Your task to perform on an android device: Open the stopwatch Image 0: 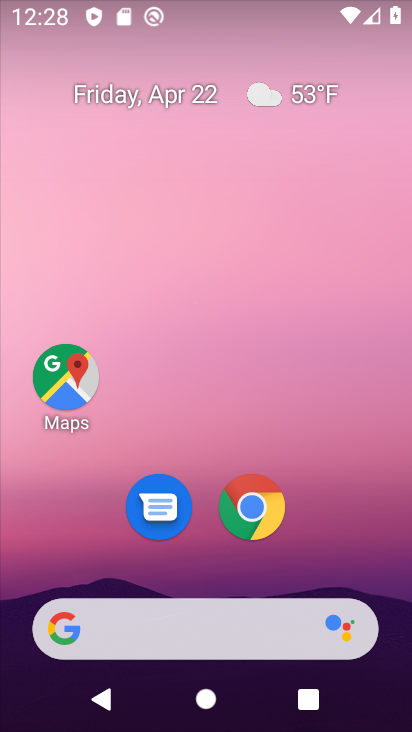
Step 0: drag from (308, 397) to (332, 213)
Your task to perform on an android device: Open the stopwatch Image 1: 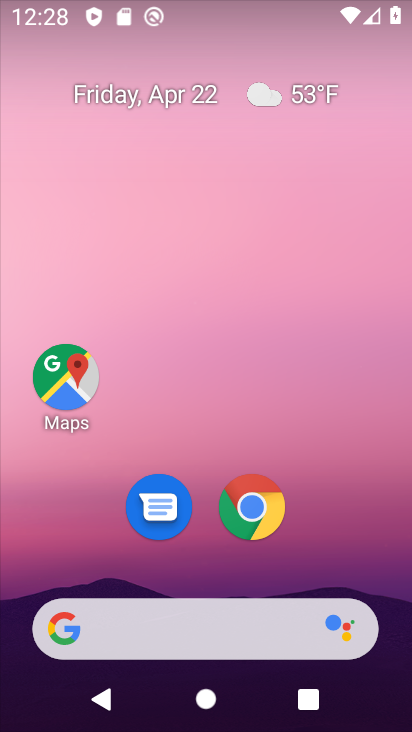
Step 1: drag from (194, 568) to (242, 185)
Your task to perform on an android device: Open the stopwatch Image 2: 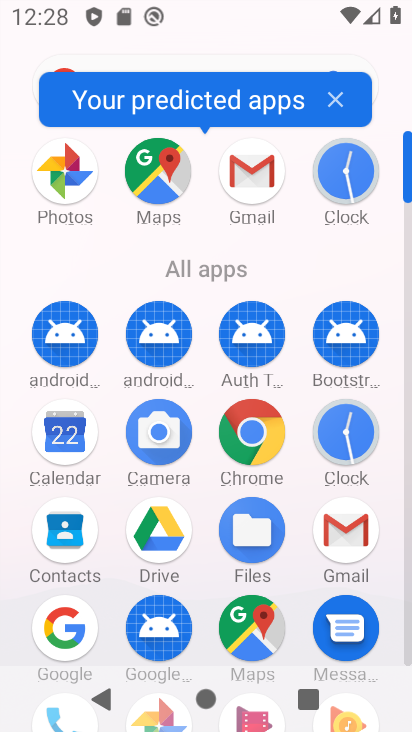
Step 2: click (362, 432)
Your task to perform on an android device: Open the stopwatch Image 3: 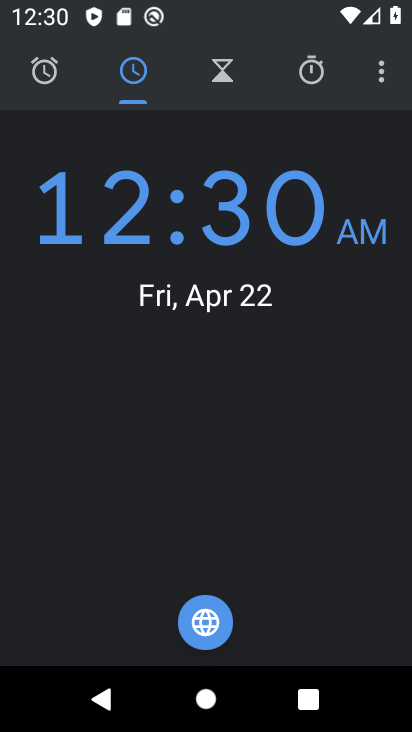
Step 3: click (314, 74)
Your task to perform on an android device: Open the stopwatch Image 4: 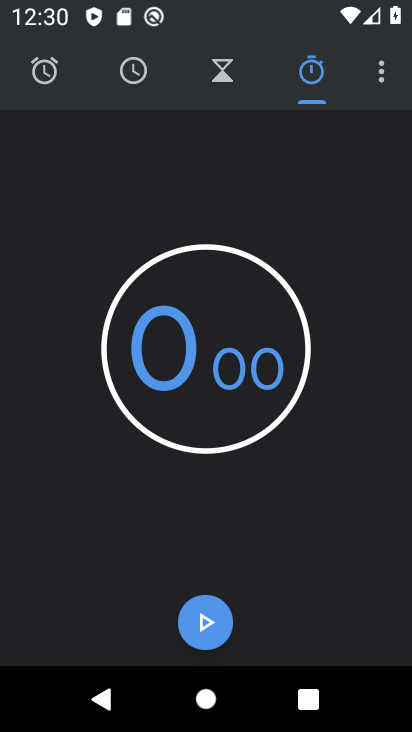
Step 4: task complete